Your task to perform on an android device: change text size in settings app Image 0: 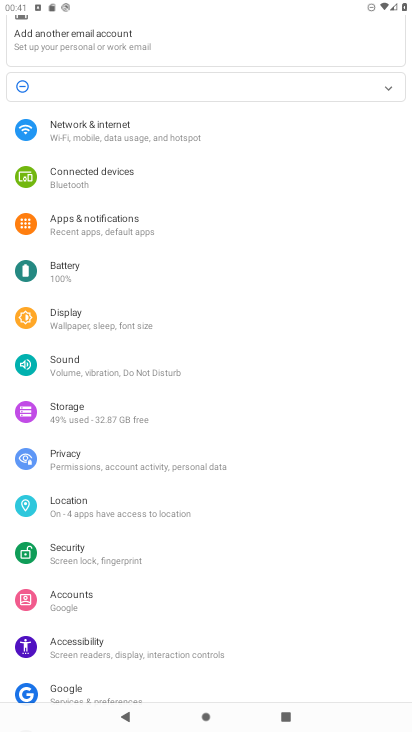
Step 0: press home button
Your task to perform on an android device: change text size in settings app Image 1: 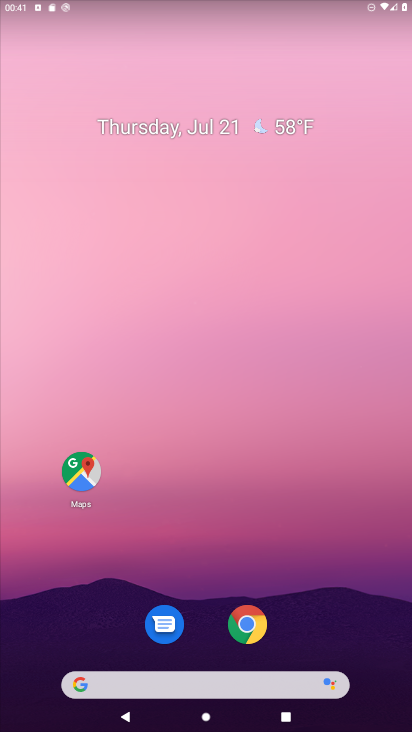
Step 1: drag from (213, 589) to (219, 215)
Your task to perform on an android device: change text size in settings app Image 2: 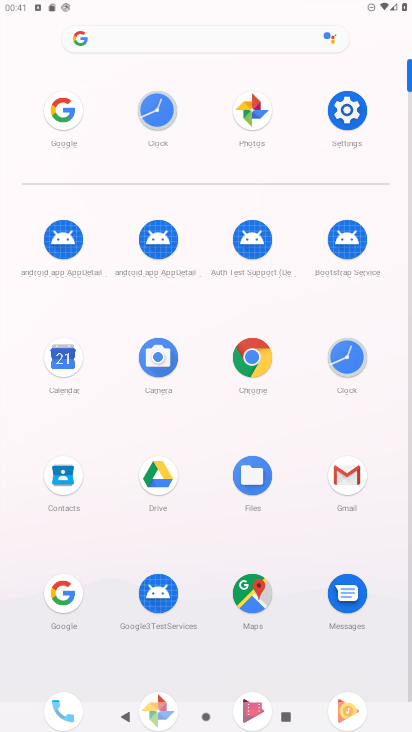
Step 2: click (343, 118)
Your task to perform on an android device: change text size in settings app Image 3: 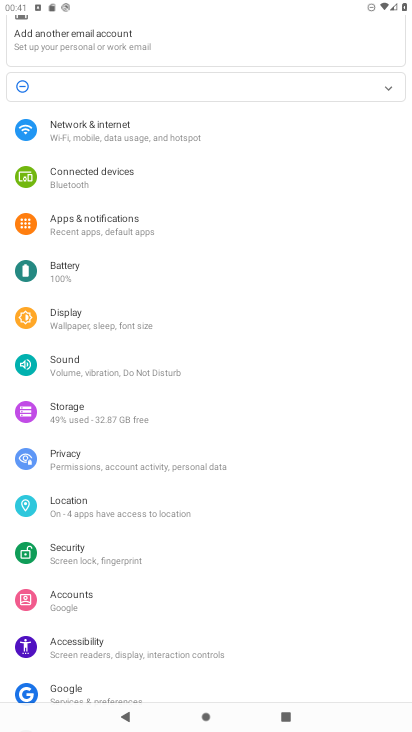
Step 3: click (129, 315)
Your task to perform on an android device: change text size in settings app Image 4: 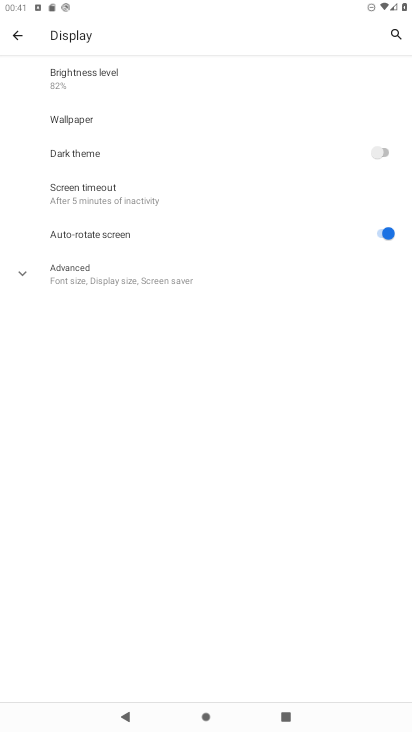
Step 4: click (123, 270)
Your task to perform on an android device: change text size in settings app Image 5: 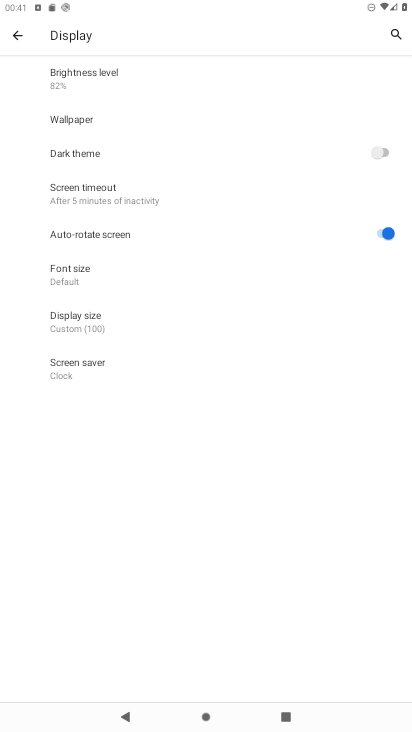
Step 5: click (144, 321)
Your task to perform on an android device: change text size in settings app Image 6: 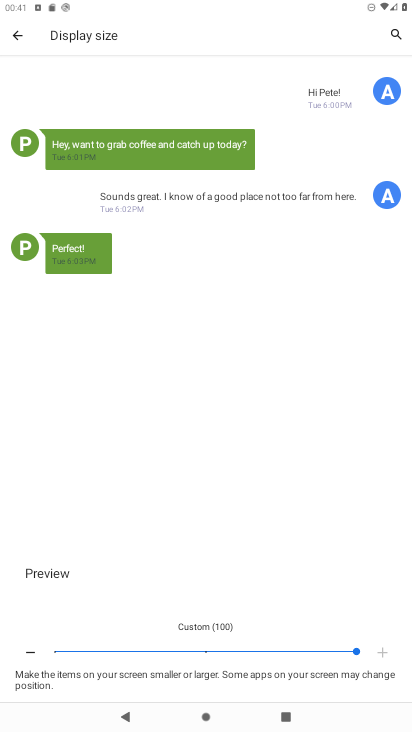
Step 6: click (16, 37)
Your task to perform on an android device: change text size in settings app Image 7: 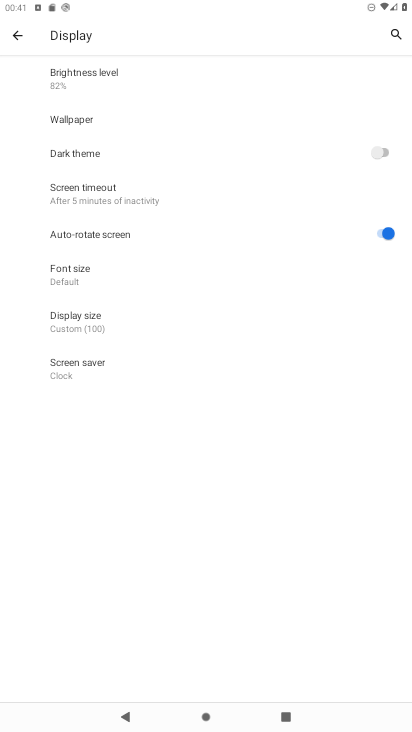
Step 7: click (78, 262)
Your task to perform on an android device: change text size in settings app Image 8: 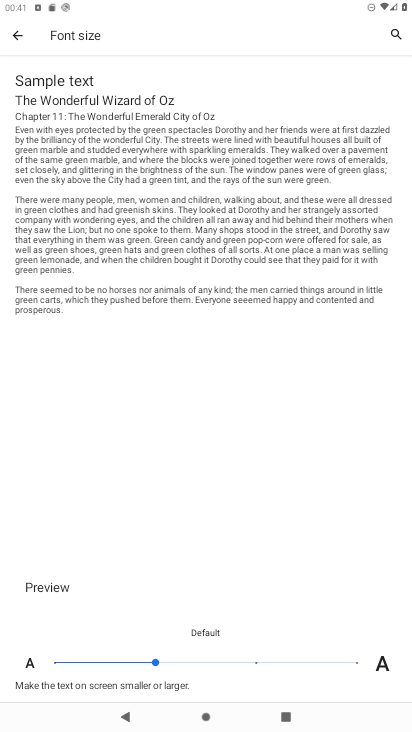
Step 8: click (356, 652)
Your task to perform on an android device: change text size in settings app Image 9: 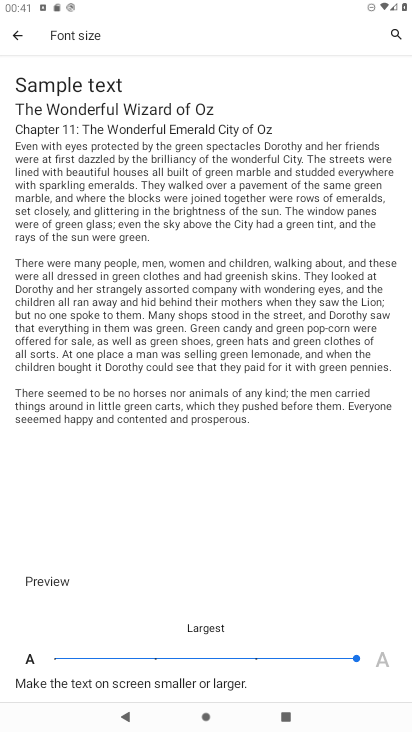
Step 9: task complete